Your task to perform on an android device: Go to display settings Image 0: 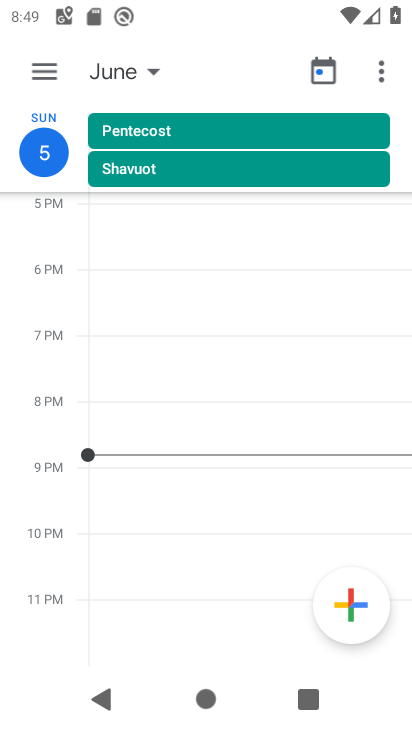
Step 0: press home button
Your task to perform on an android device: Go to display settings Image 1: 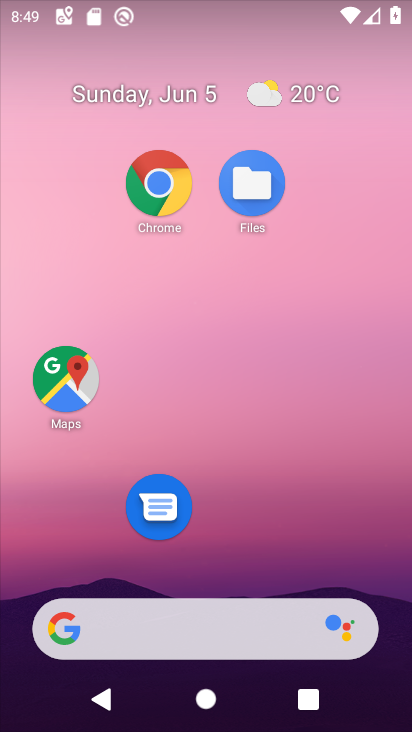
Step 1: drag from (217, 574) to (245, 63)
Your task to perform on an android device: Go to display settings Image 2: 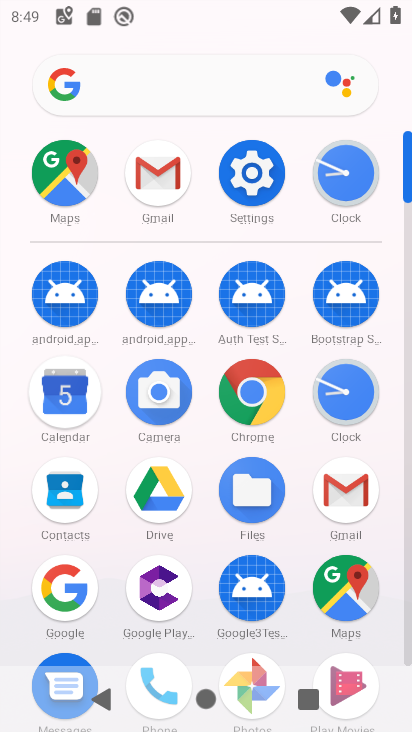
Step 2: click (269, 177)
Your task to perform on an android device: Go to display settings Image 3: 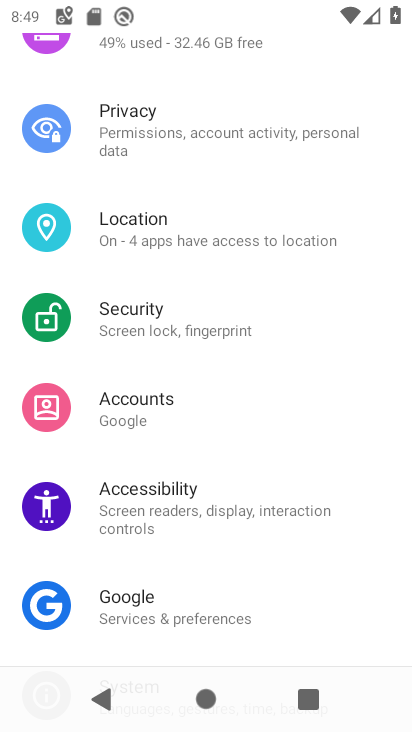
Step 3: drag from (269, 177) to (221, 515)
Your task to perform on an android device: Go to display settings Image 4: 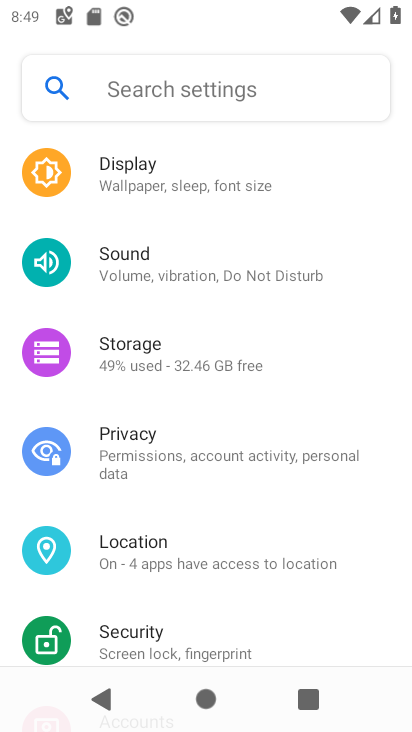
Step 4: click (183, 193)
Your task to perform on an android device: Go to display settings Image 5: 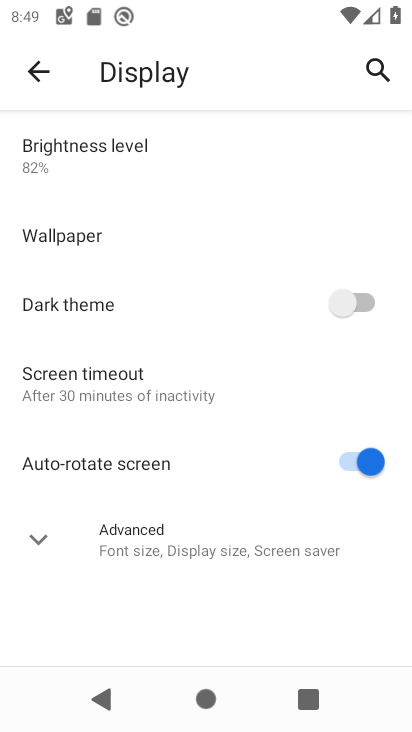
Step 5: task complete